Your task to perform on an android device: Open CNN.com Image 0: 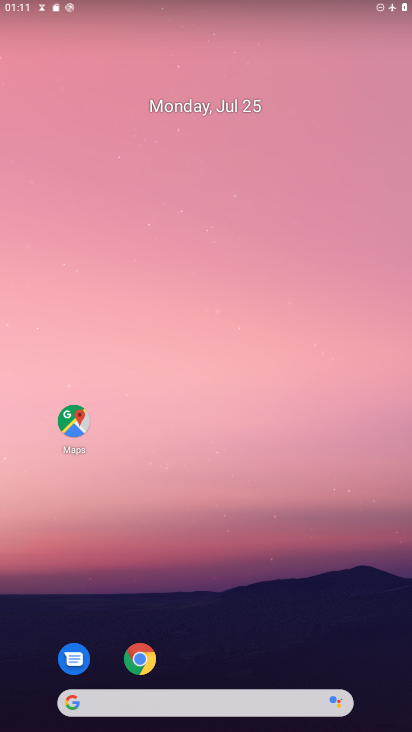
Step 0: drag from (266, 640) to (243, 193)
Your task to perform on an android device: Open CNN.com Image 1: 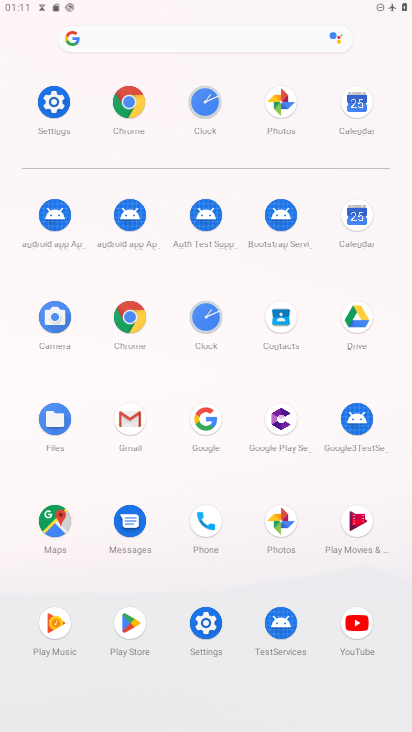
Step 1: click (115, 103)
Your task to perform on an android device: Open CNN.com Image 2: 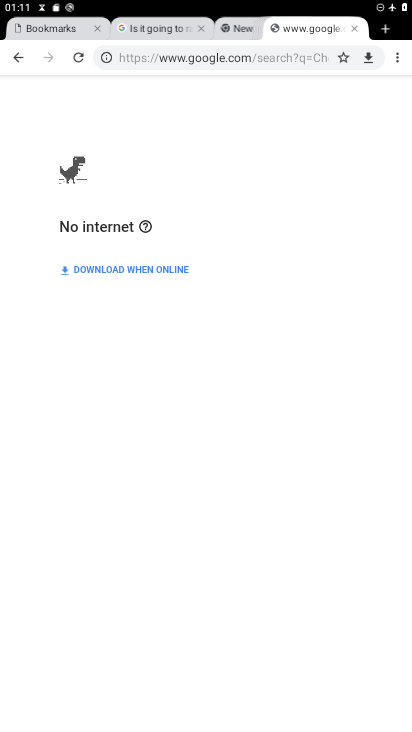
Step 2: click (381, 20)
Your task to perform on an android device: Open CNN.com Image 3: 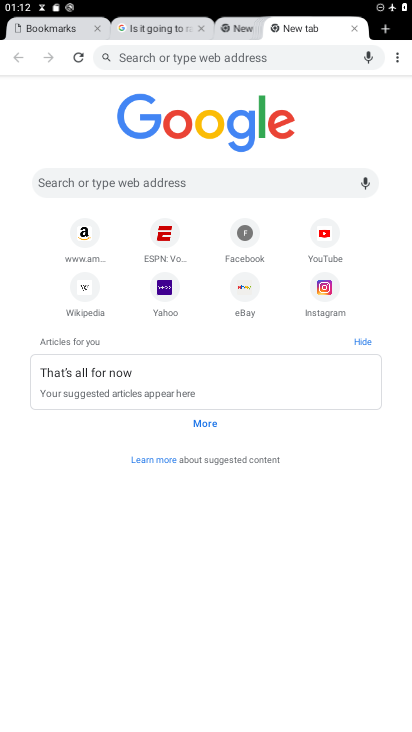
Step 3: click (130, 179)
Your task to perform on an android device: Open CNN.com Image 4: 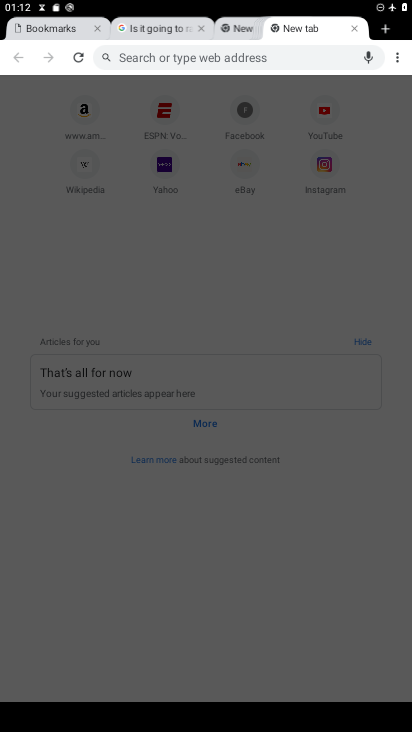
Step 4: type "CNN.com "
Your task to perform on an android device: Open CNN.com Image 5: 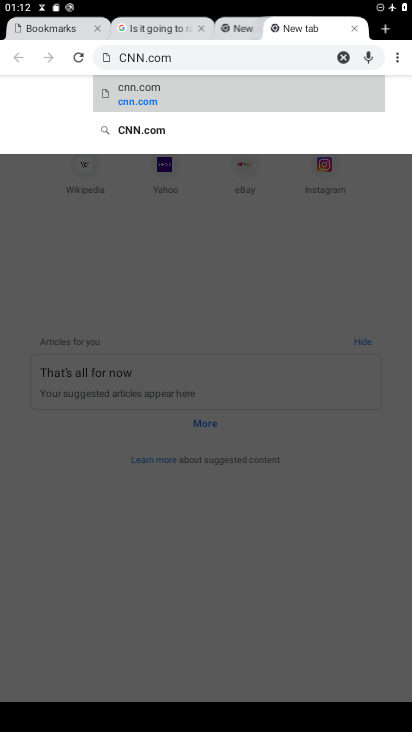
Step 5: click (179, 90)
Your task to perform on an android device: Open CNN.com Image 6: 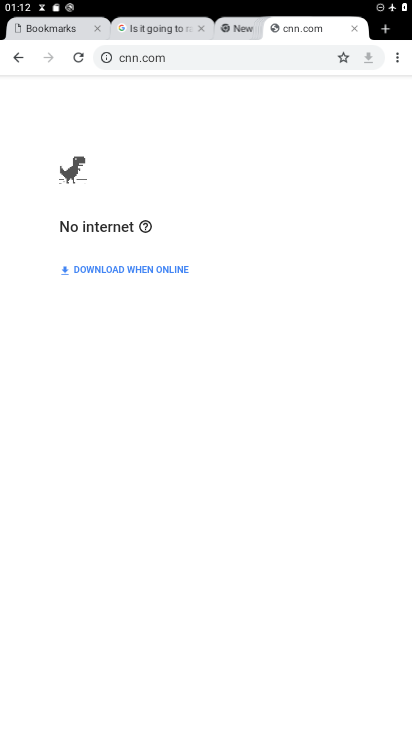
Step 6: task complete